Your task to perform on an android device: turn vacation reply on in the gmail app Image 0: 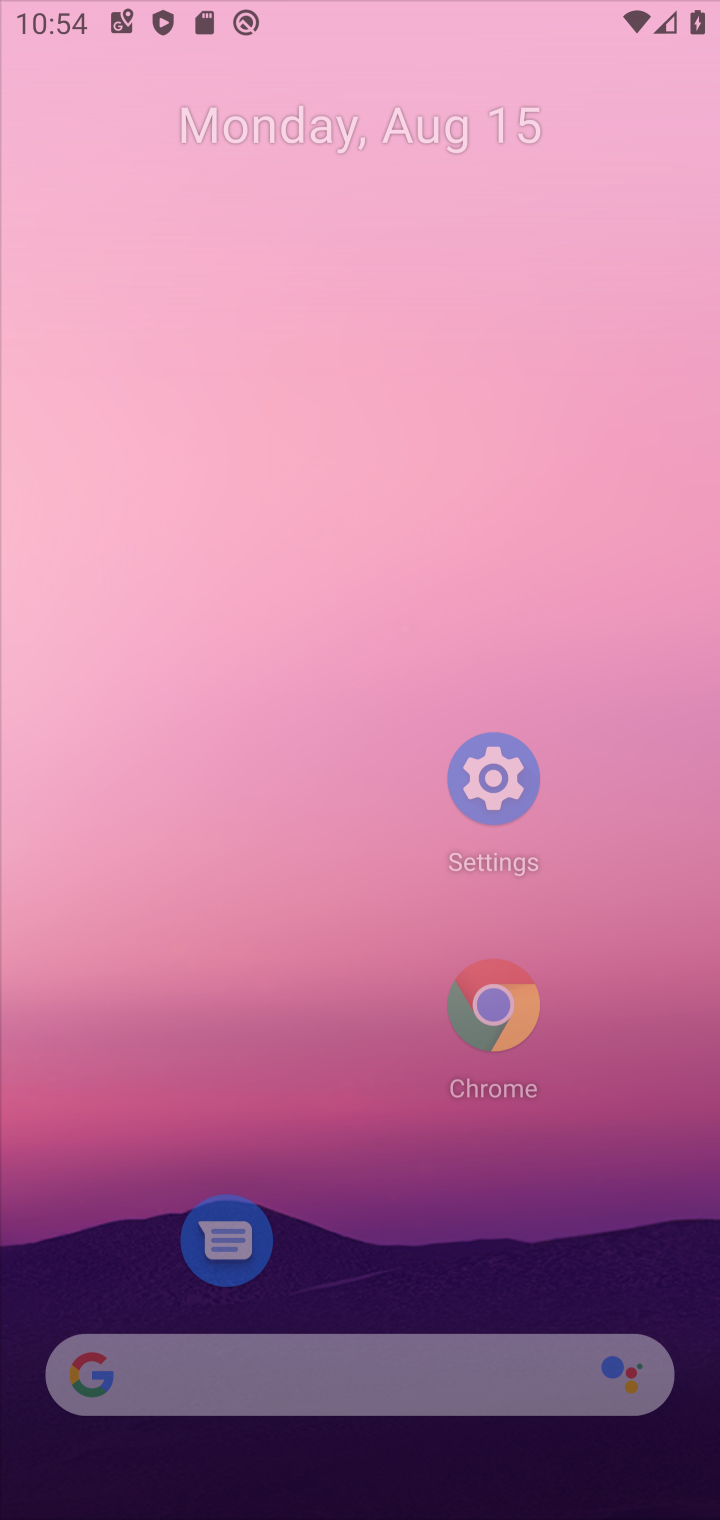
Step 0: press home button
Your task to perform on an android device: turn vacation reply on in the gmail app Image 1: 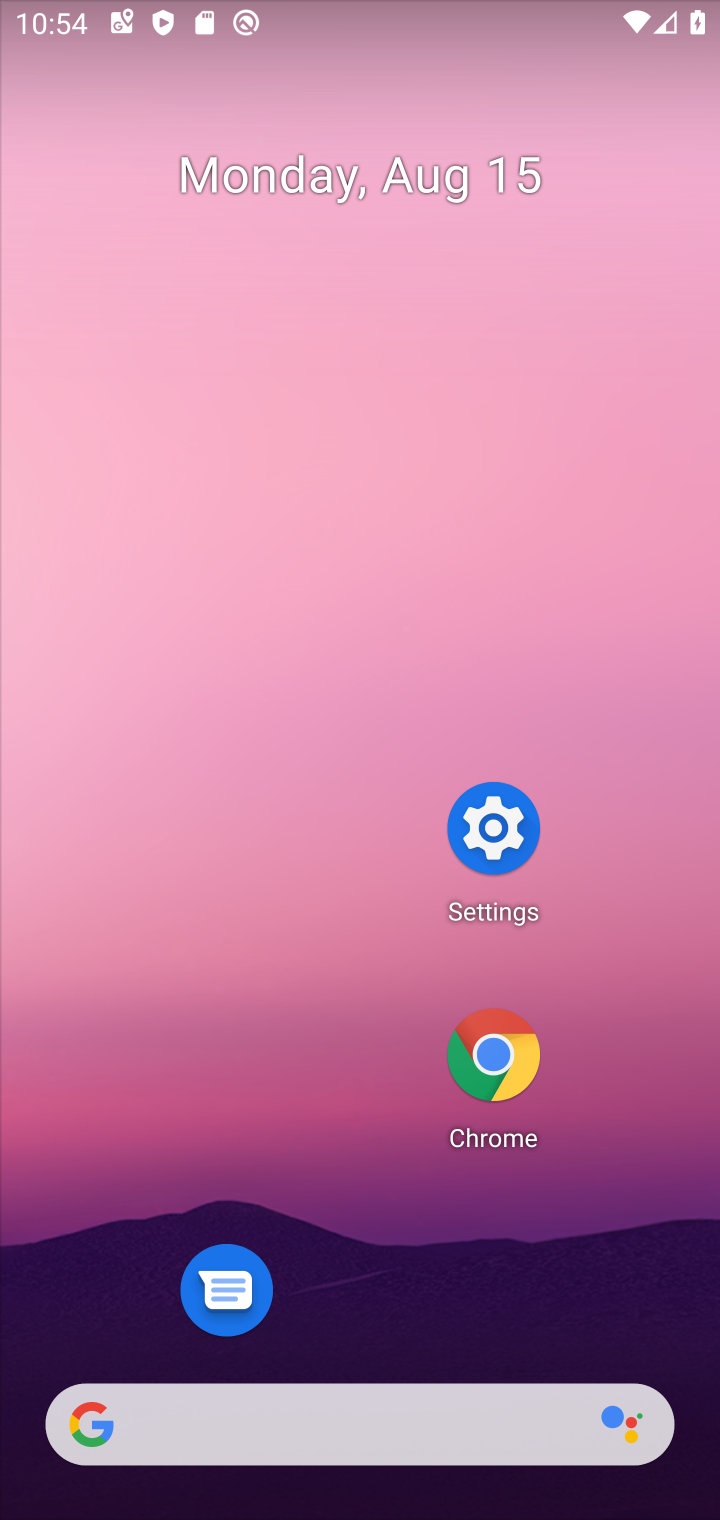
Step 1: drag from (386, 1414) to (546, 100)
Your task to perform on an android device: turn vacation reply on in the gmail app Image 2: 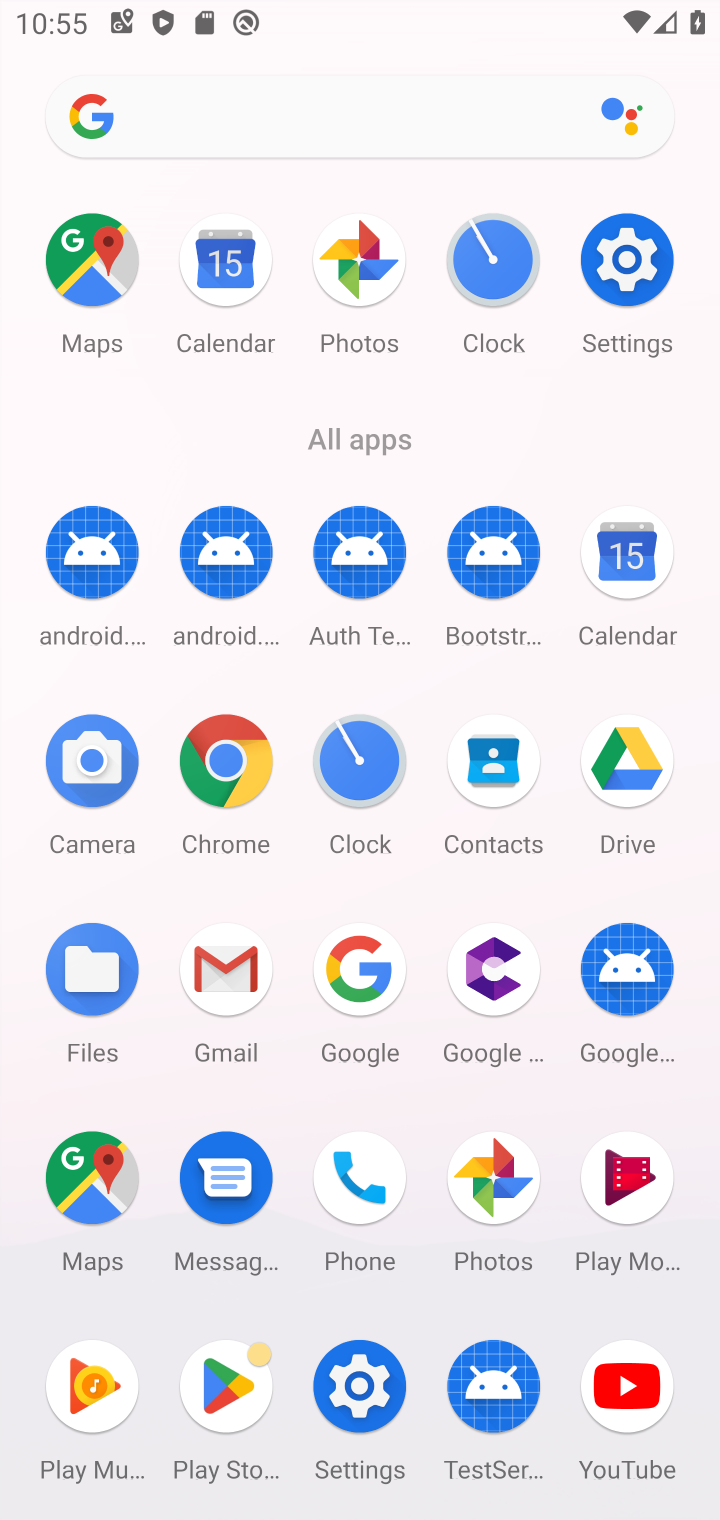
Step 2: click (223, 954)
Your task to perform on an android device: turn vacation reply on in the gmail app Image 3: 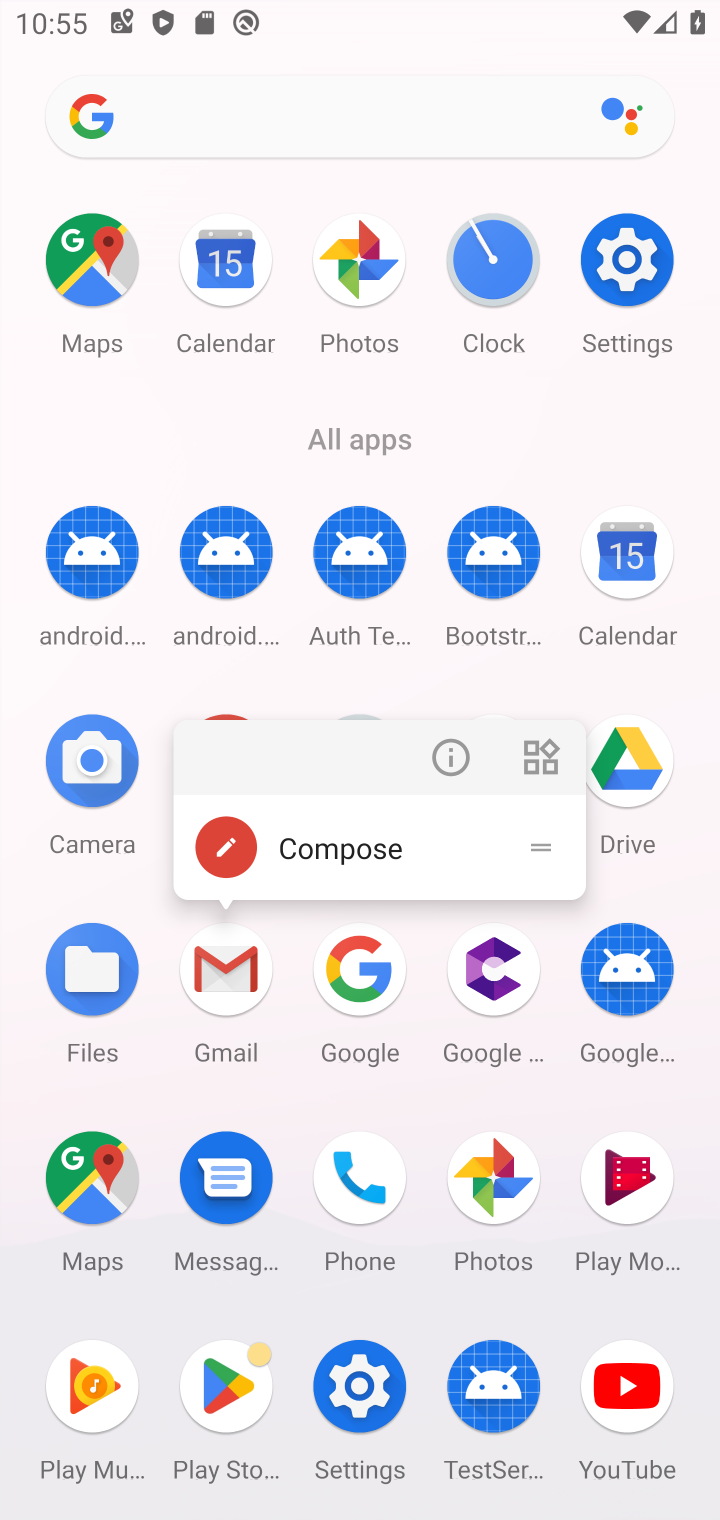
Step 3: click (223, 958)
Your task to perform on an android device: turn vacation reply on in the gmail app Image 4: 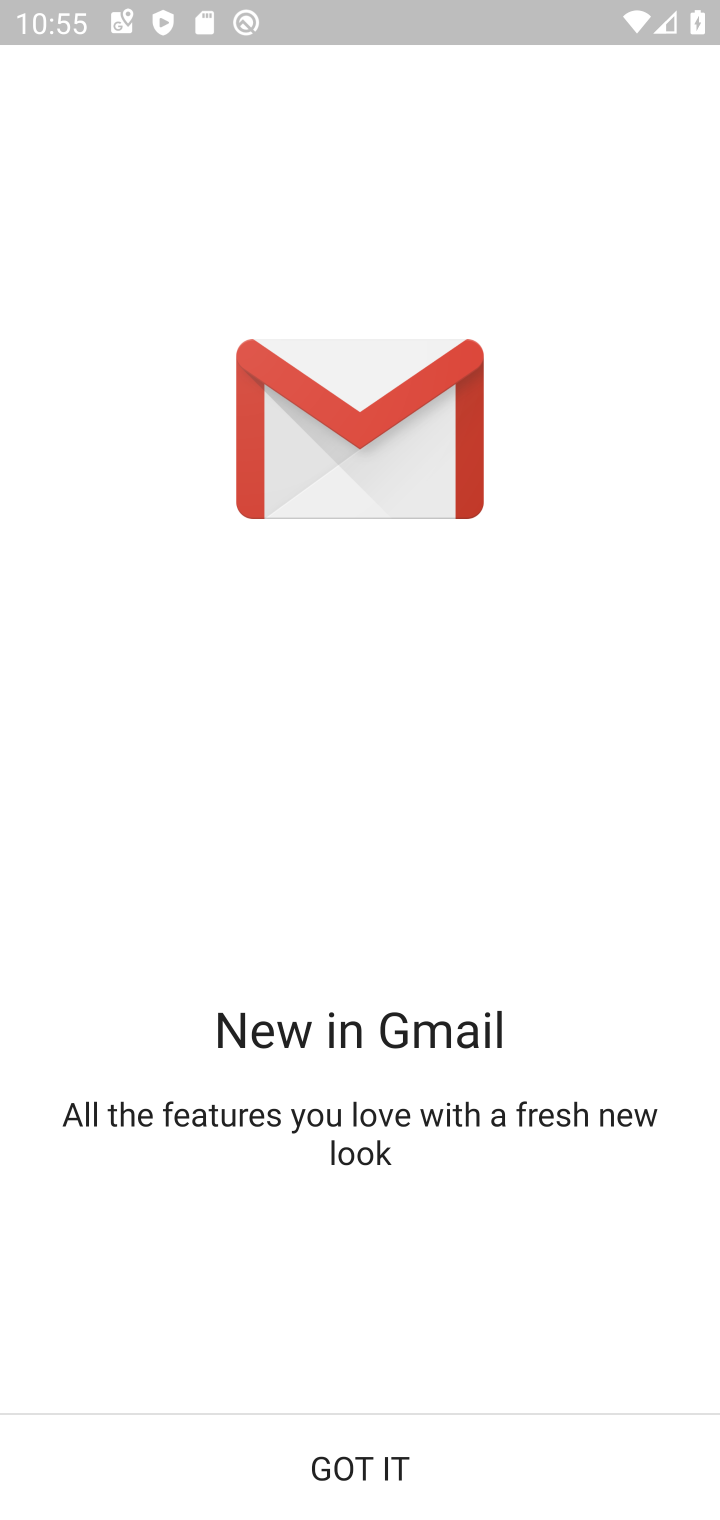
Step 4: click (350, 1478)
Your task to perform on an android device: turn vacation reply on in the gmail app Image 5: 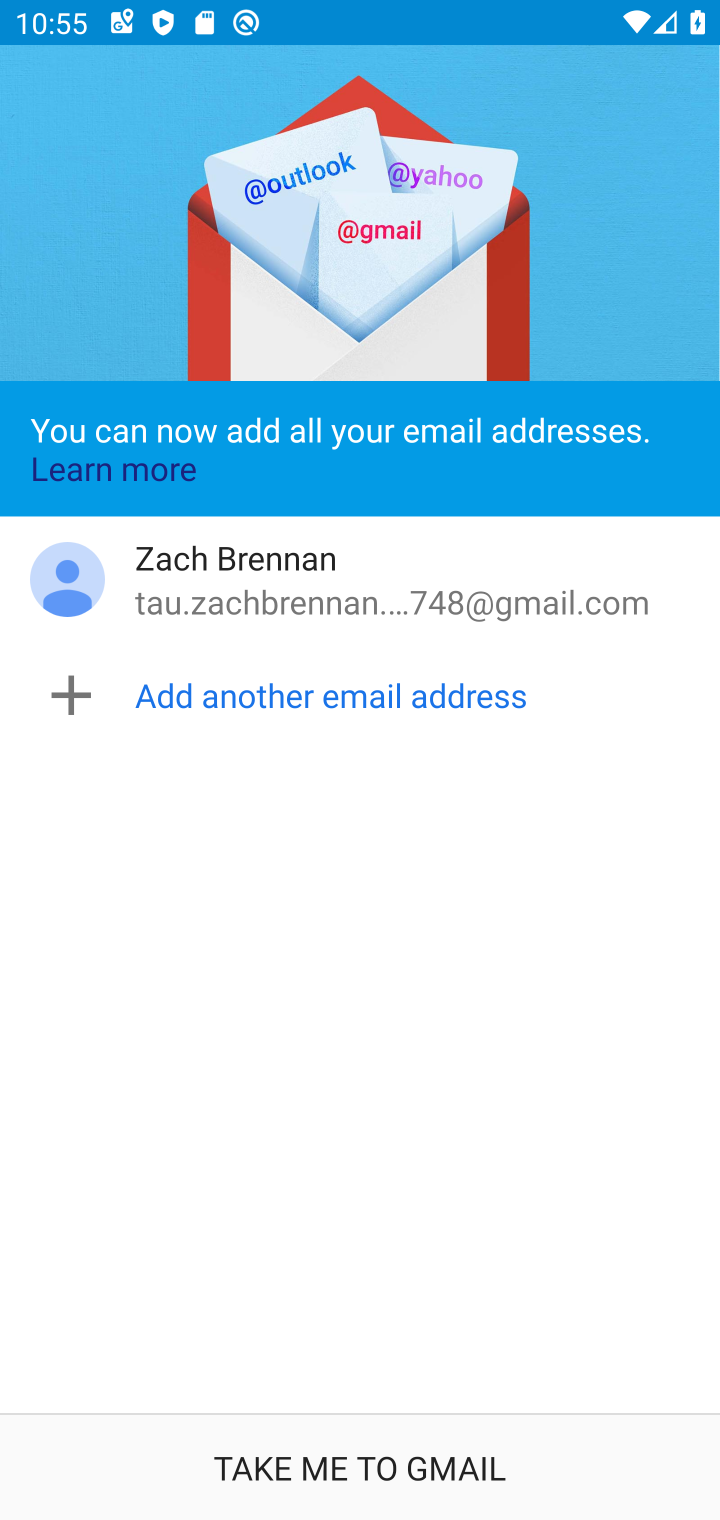
Step 5: click (357, 1466)
Your task to perform on an android device: turn vacation reply on in the gmail app Image 6: 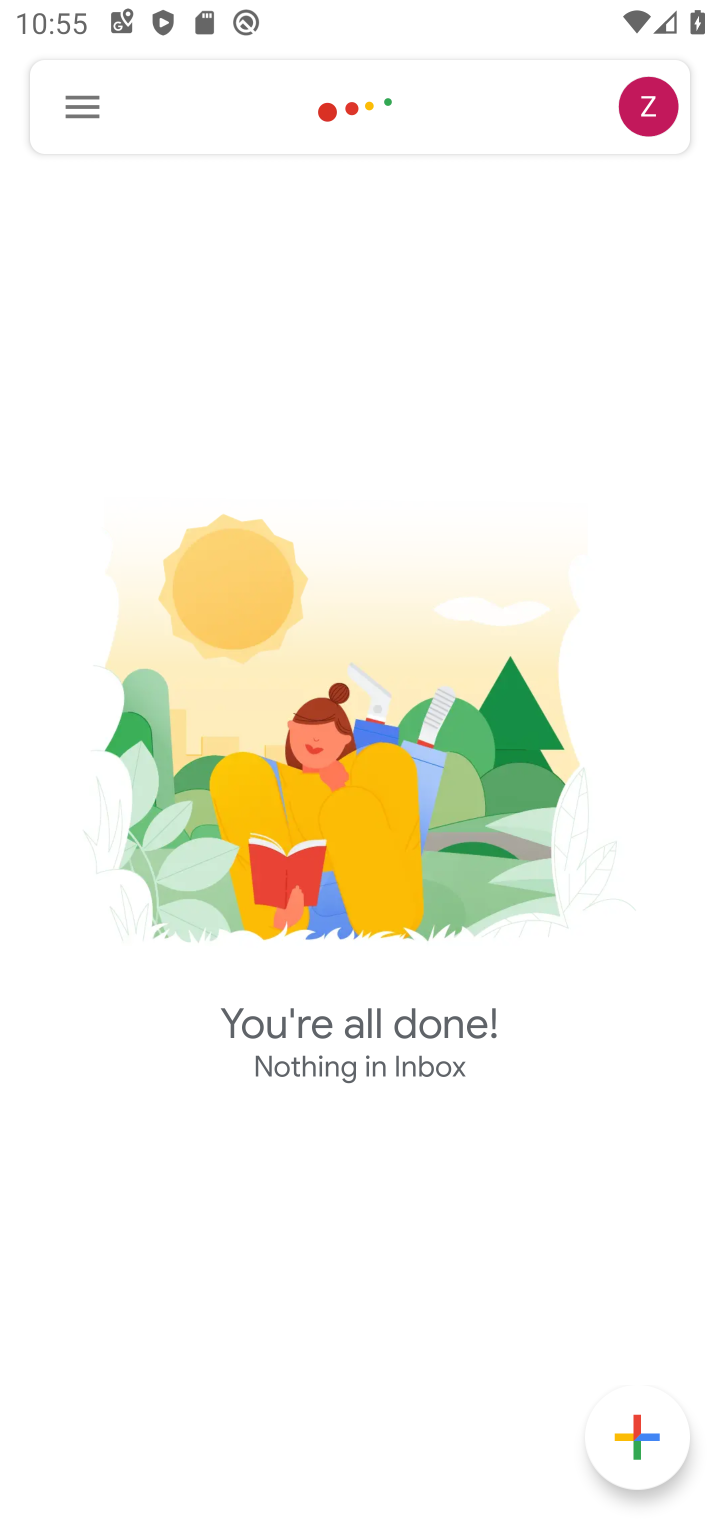
Step 6: click (77, 108)
Your task to perform on an android device: turn vacation reply on in the gmail app Image 7: 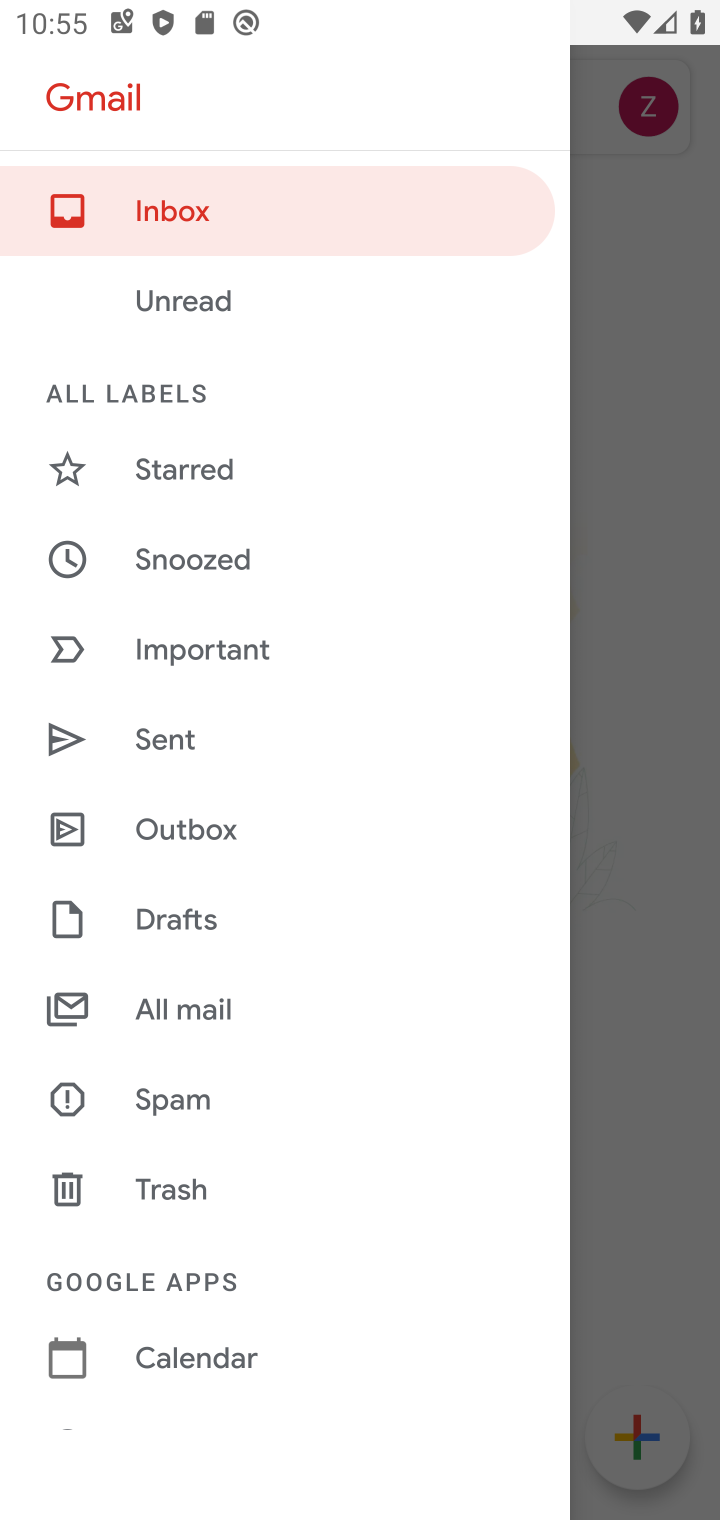
Step 7: drag from (440, 1171) to (535, 82)
Your task to perform on an android device: turn vacation reply on in the gmail app Image 8: 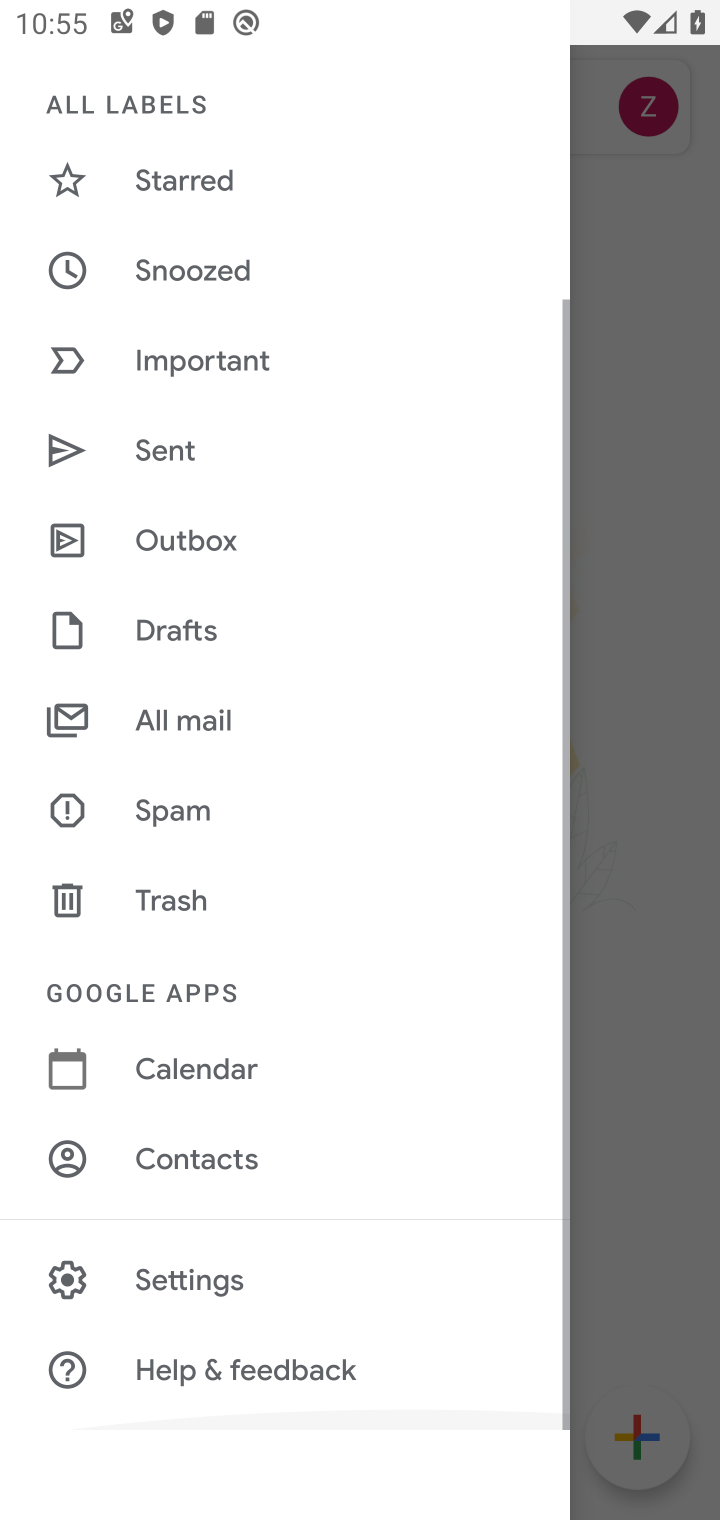
Step 8: click (210, 1268)
Your task to perform on an android device: turn vacation reply on in the gmail app Image 9: 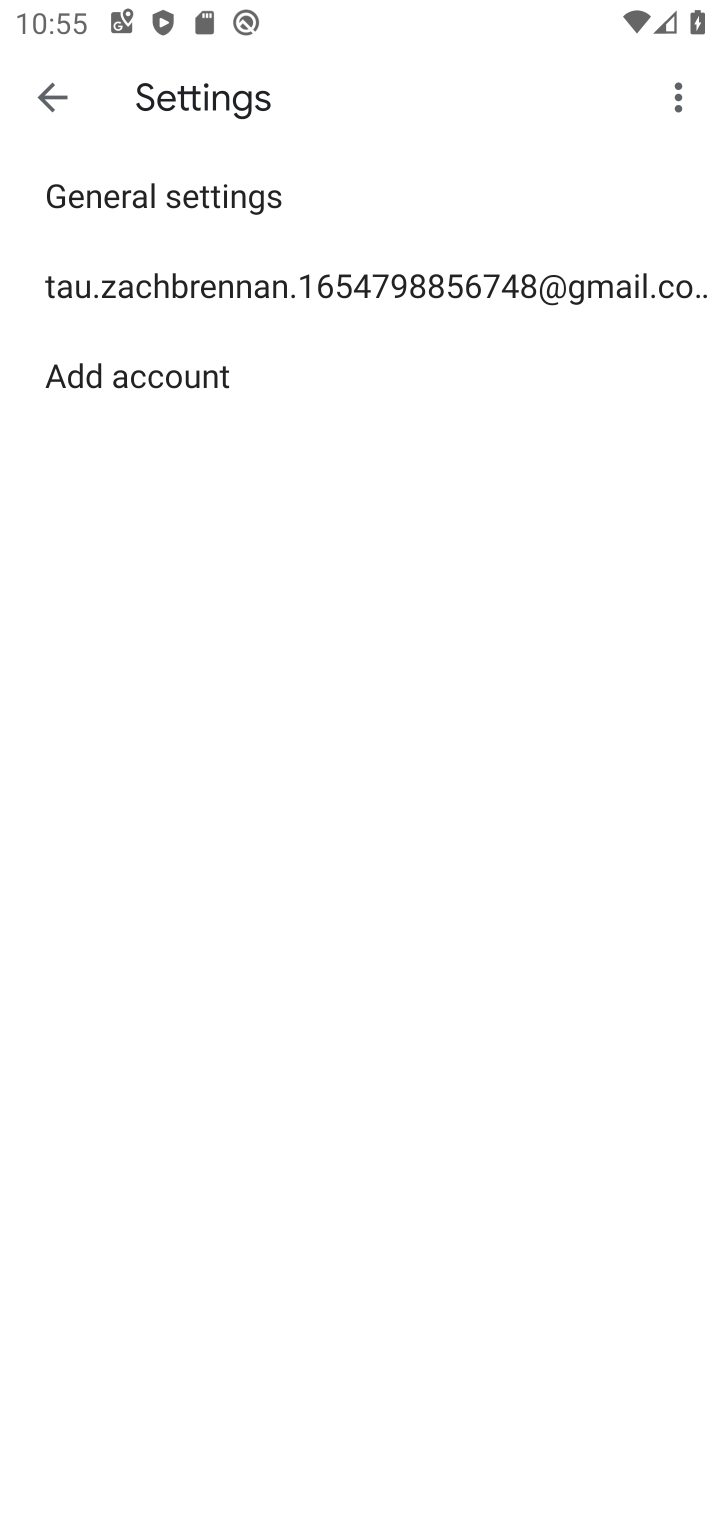
Step 9: click (451, 274)
Your task to perform on an android device: turn vacation reply on in the gmail app Image 10: 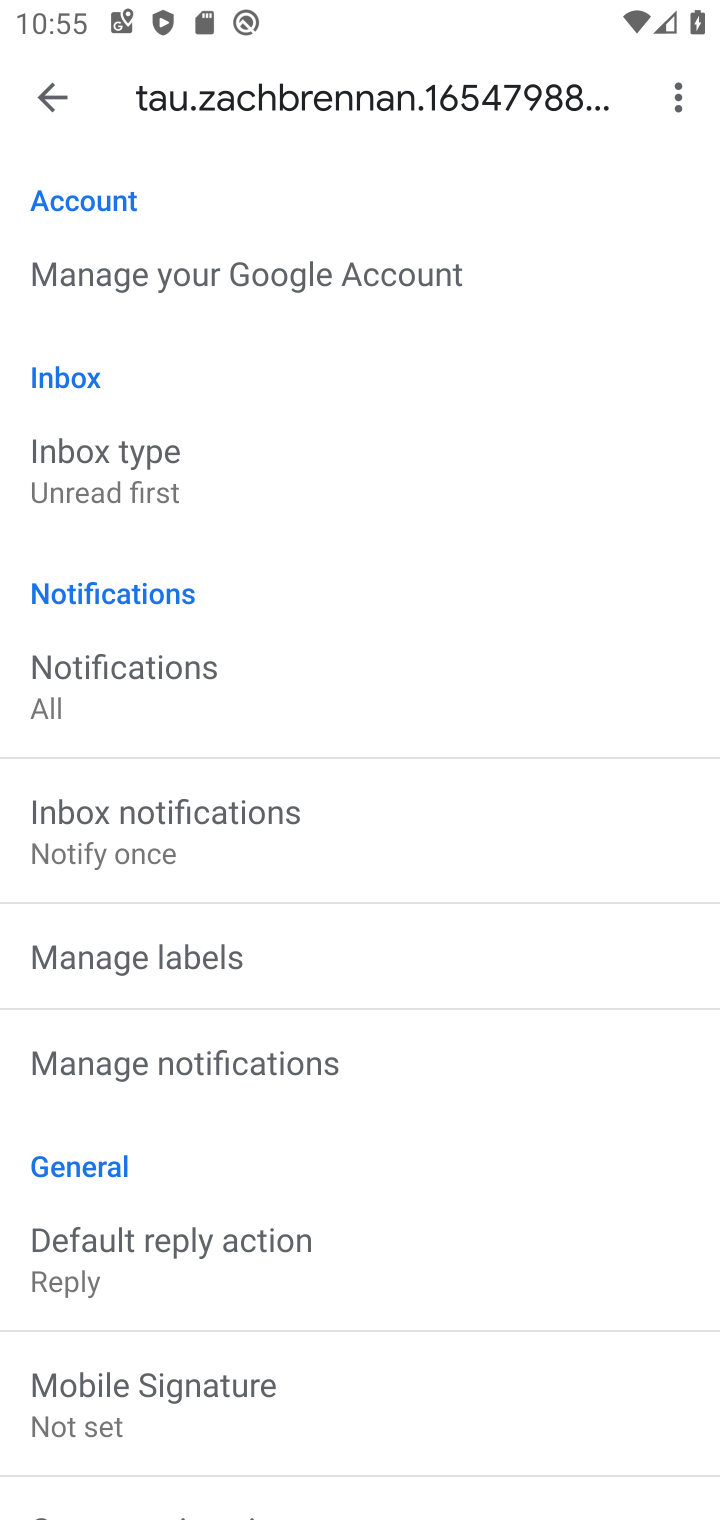
Step 10: drag from (421, 1425) to (652, 110)
Your task to perform on an android device: turn vacation reply on in the gmail app Image 11: 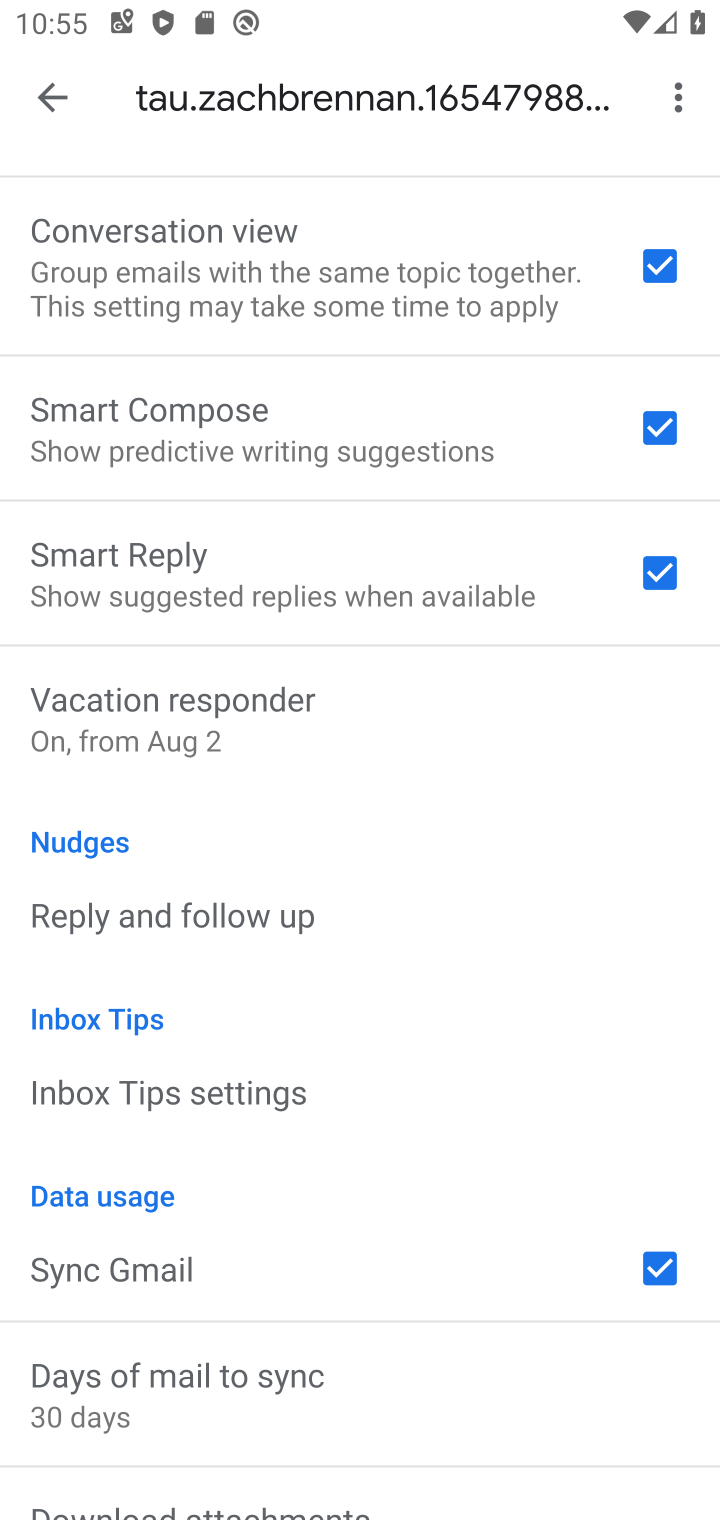
Step 11: click (181, 708)
Your task to perform on an android device: turn vacation reply on in the gmail app Image 12: 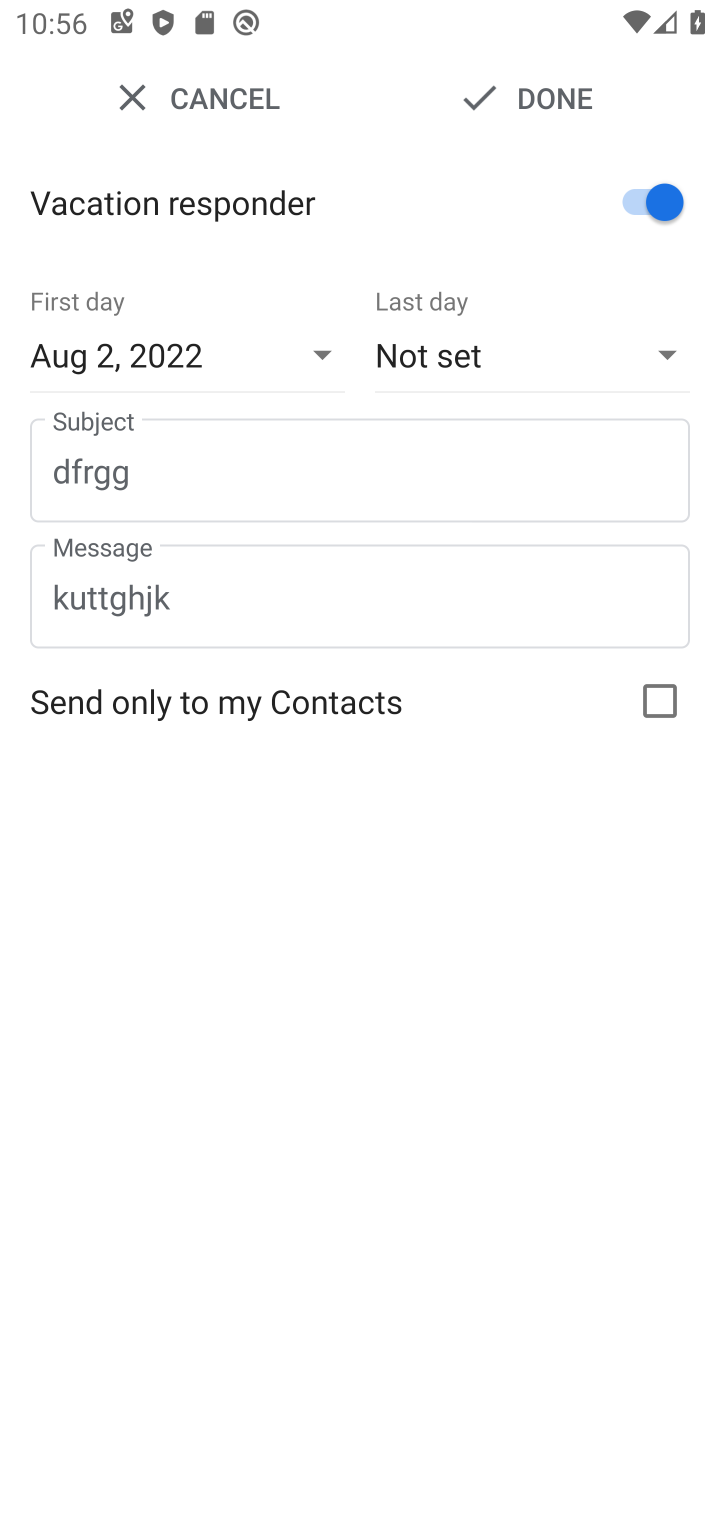
Step 12: task complete